Your task to perform on an android device: open a new tab in the chrome app Image 0: 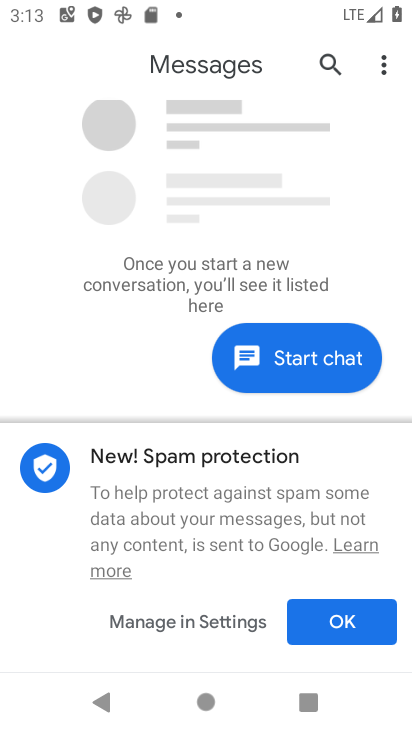
Step 0: press home button
Your task to perform on an android device: open a new tab in the chrome app Image 1: 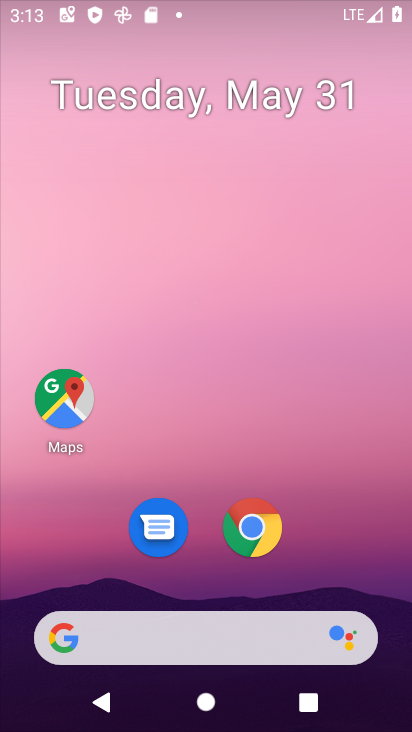
Step 1: drag from (341, 583) to (292, 175)
Your task to perform on an android device: open a new tab in the chrome app Image 2: 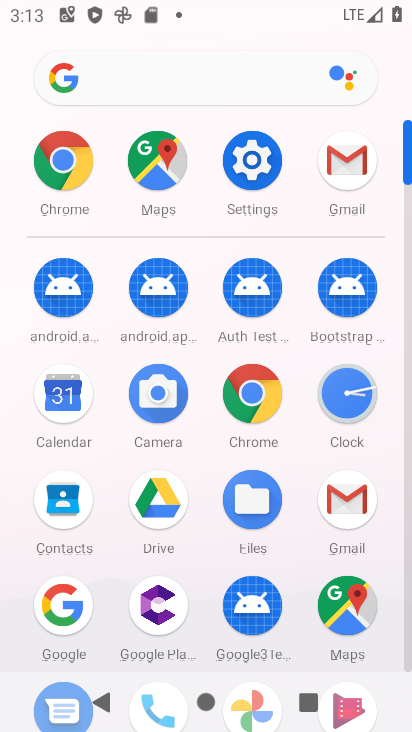
Step 2: click (74, 189)
Your task to perform on an android device: open a new tab in the chrome app Image 3: 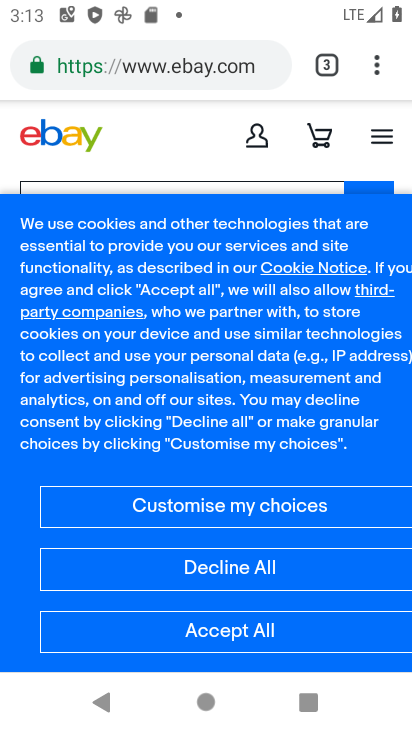
Step 3: task complete